Your task to perform on an android device: search for starred emails in the gmail app Image 0: 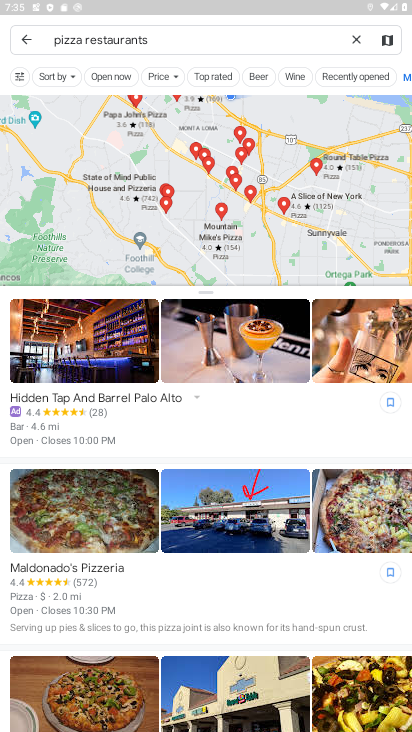
Step 0: press home button
Your task to perform on an android device: search for starred emails in the gmail app Image 1: 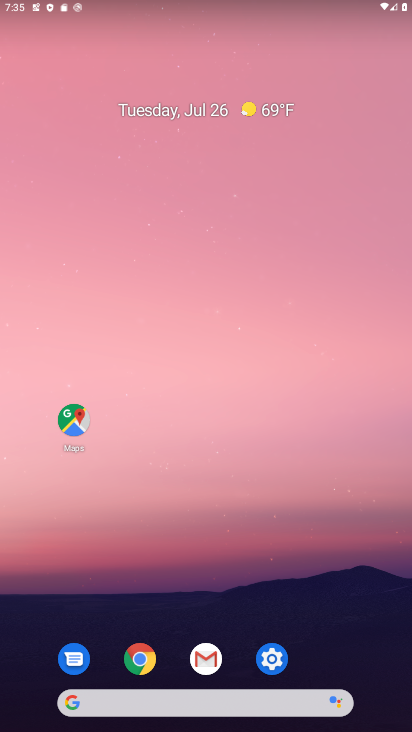
Step 1: click (203, 677)
Your task to perform on an android device: search for starred emails in the gmail app Image 2: 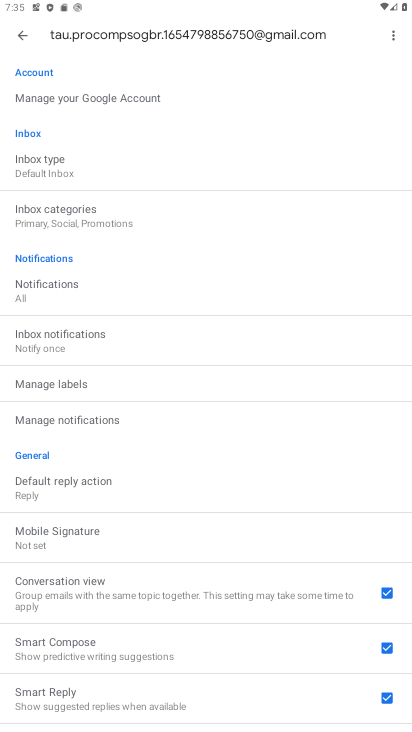
Step 2: click (21, 30)
Your task to perform on an android device: search for starred emails in the gmail app Image 3: 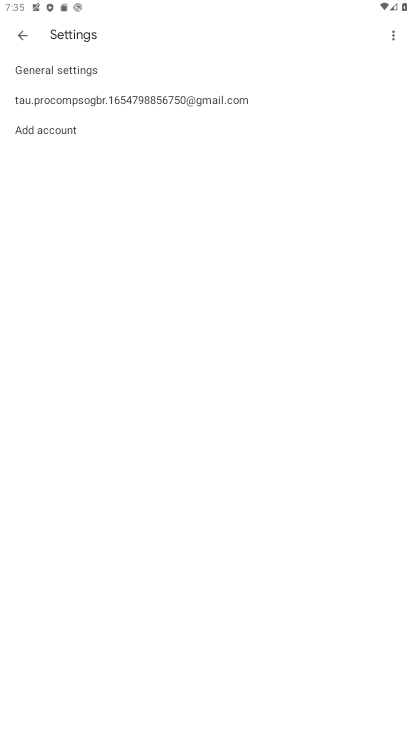
Step 3: click (21, 30)
Your task to perform on an android device: search for starred emails in the gmail app Image 4: 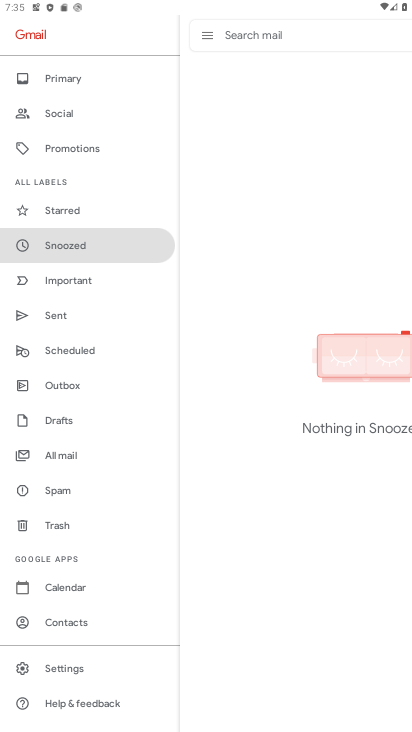
Step 4: click (239, 31)
Your task to perform on an android device: search for starred emails in the gmail app Image 5: 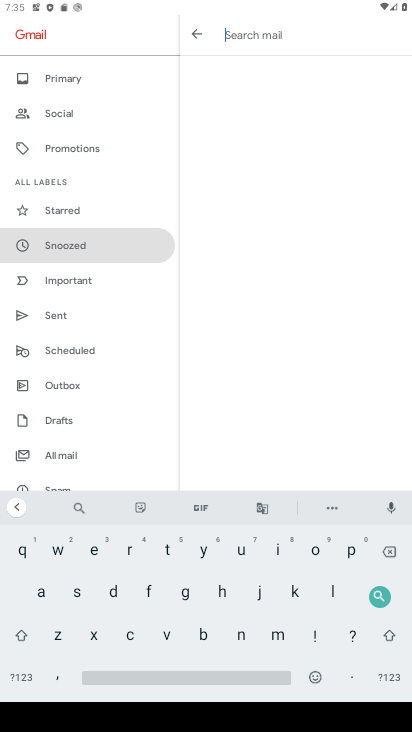
Step 5: click (64, 207)
Your task to perform on an android device: search for starred emails in the gmail app Image 6: 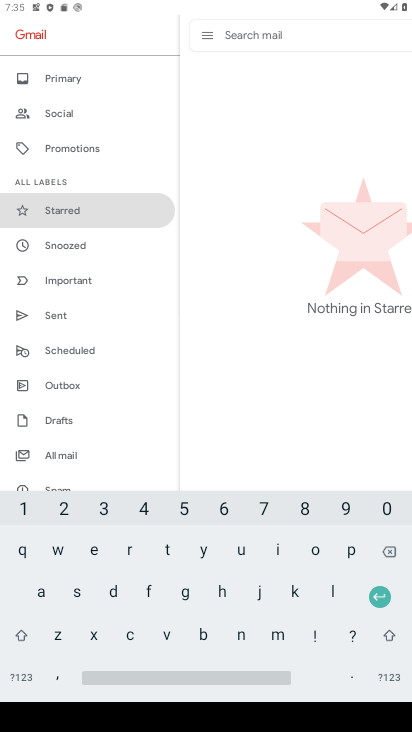
Step 6: task complete